Your task to perform on an android device: Clear all items from cart on newegg.com. Add "dell xps" to the cart on newegg.com Image 0: 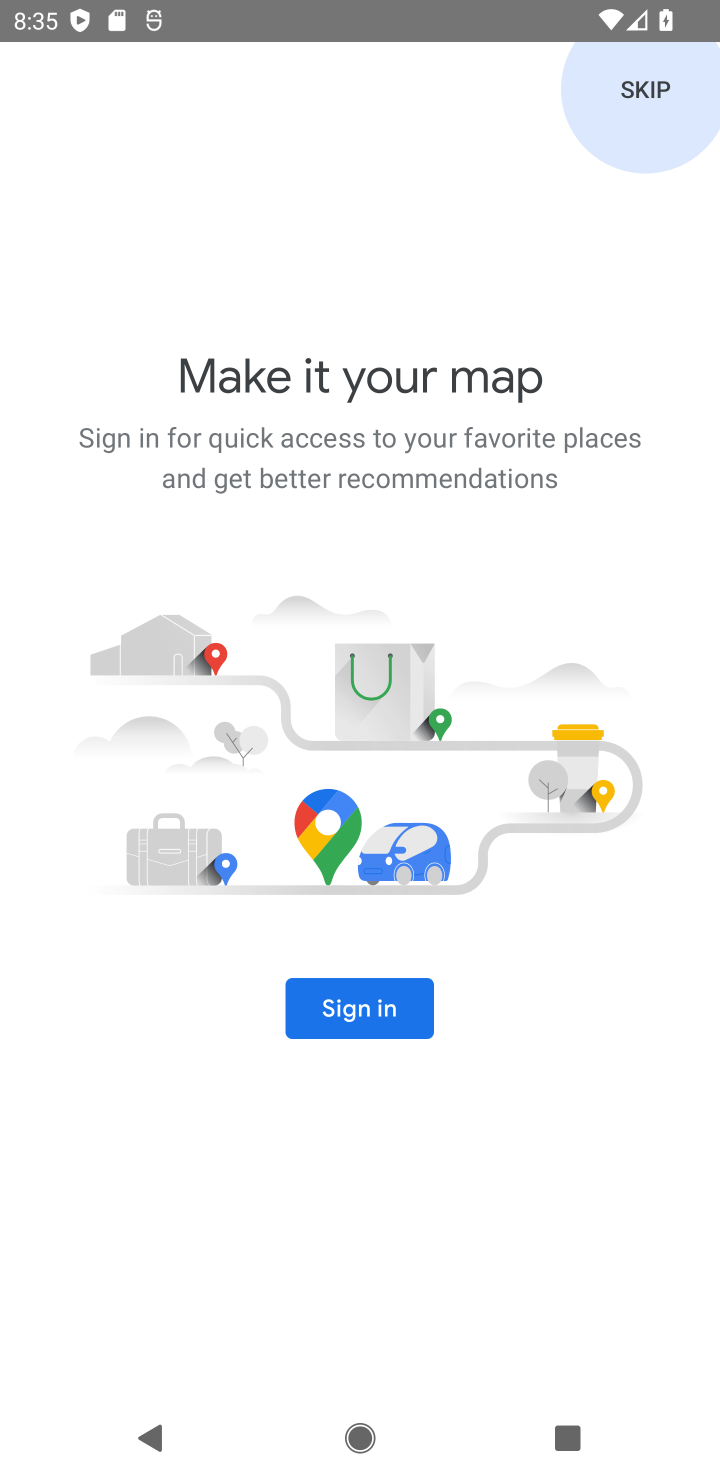
Step 0: press home button
Your task to perform on an android device: Clear all items from cart on newegg.com. Add "dell xps" to the cart on newegg.com Image 1: 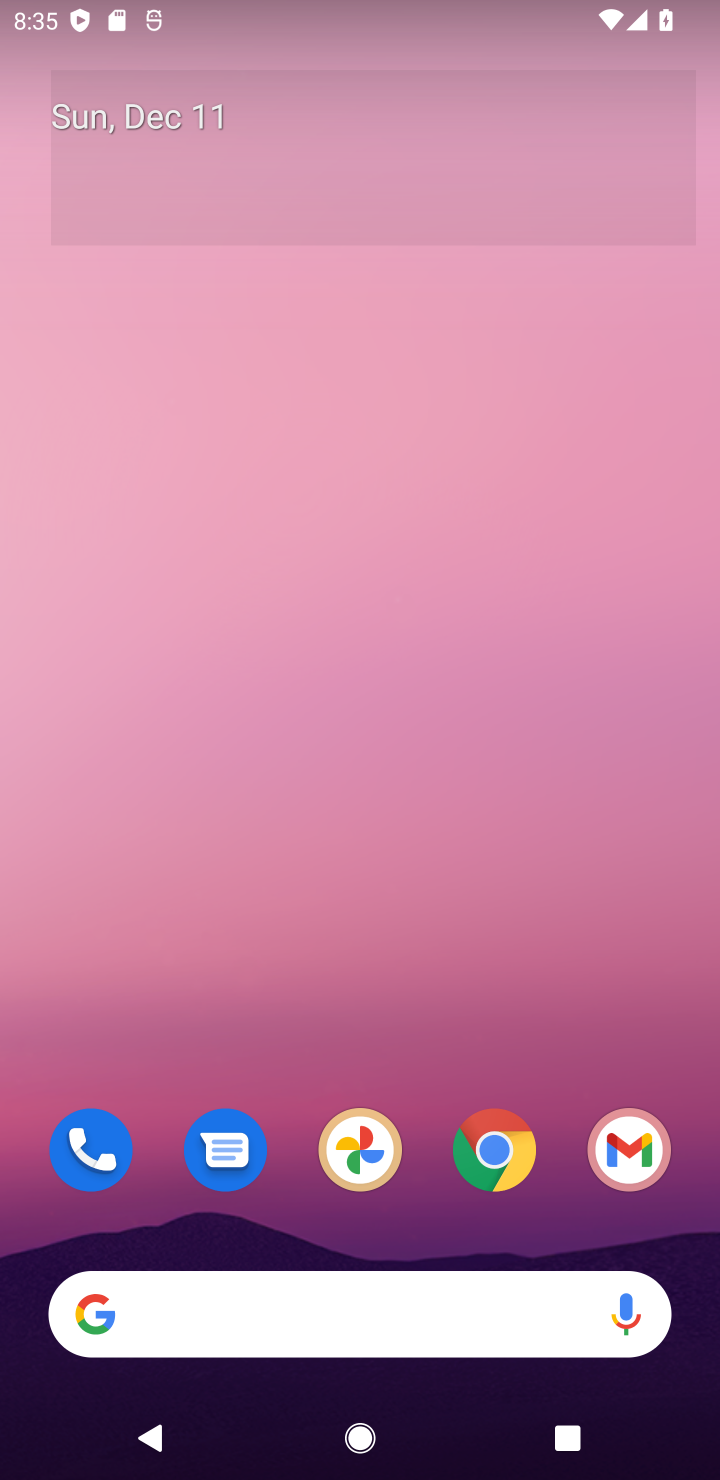
Step 1: click (496, 1150)
Your task to perform on an android device: Clear all items from cart on newegg.com. Add "dell xps" to the cart on newegg.com Image 2: 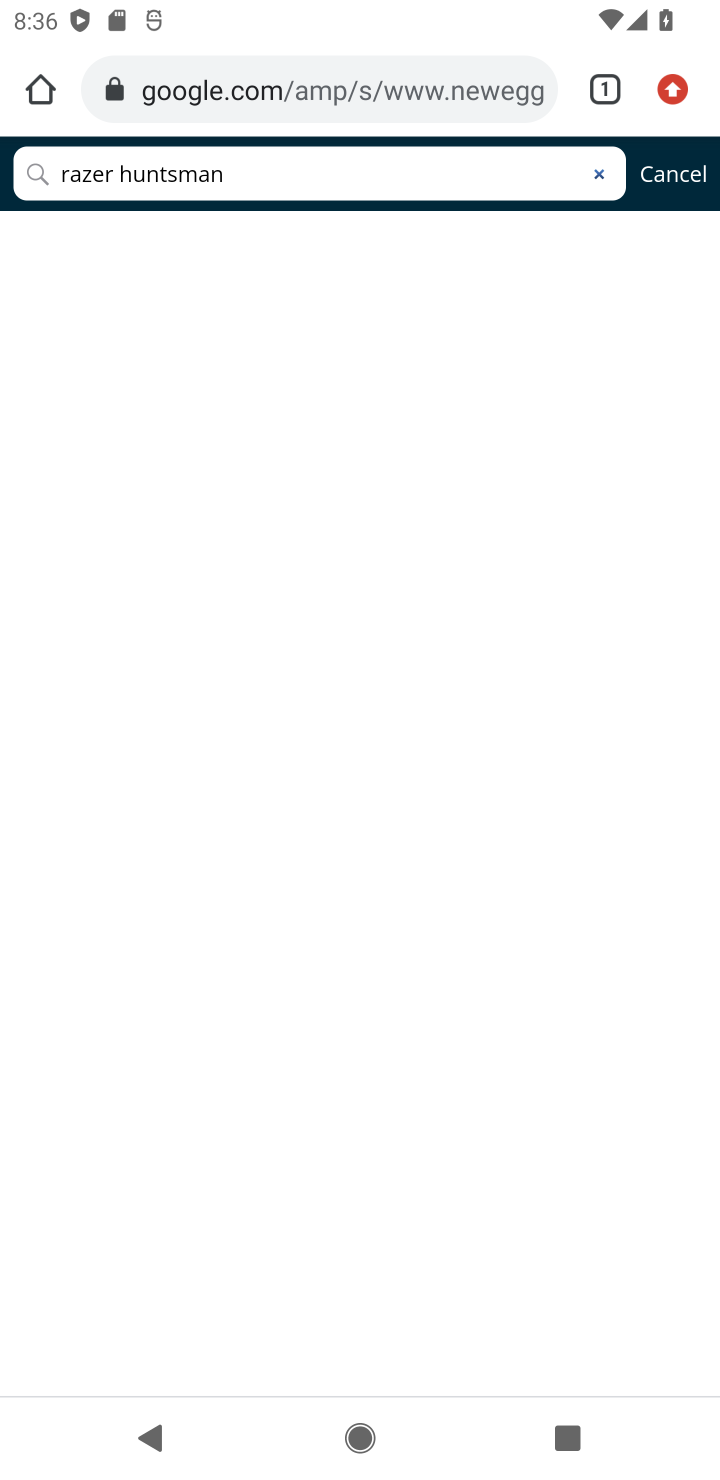
Step 2: click (416, 101)
Your task to perform on an android device: Clear all items from cart on newegg.com. Add "dell xps" to the cart on newegg.com Image 3: 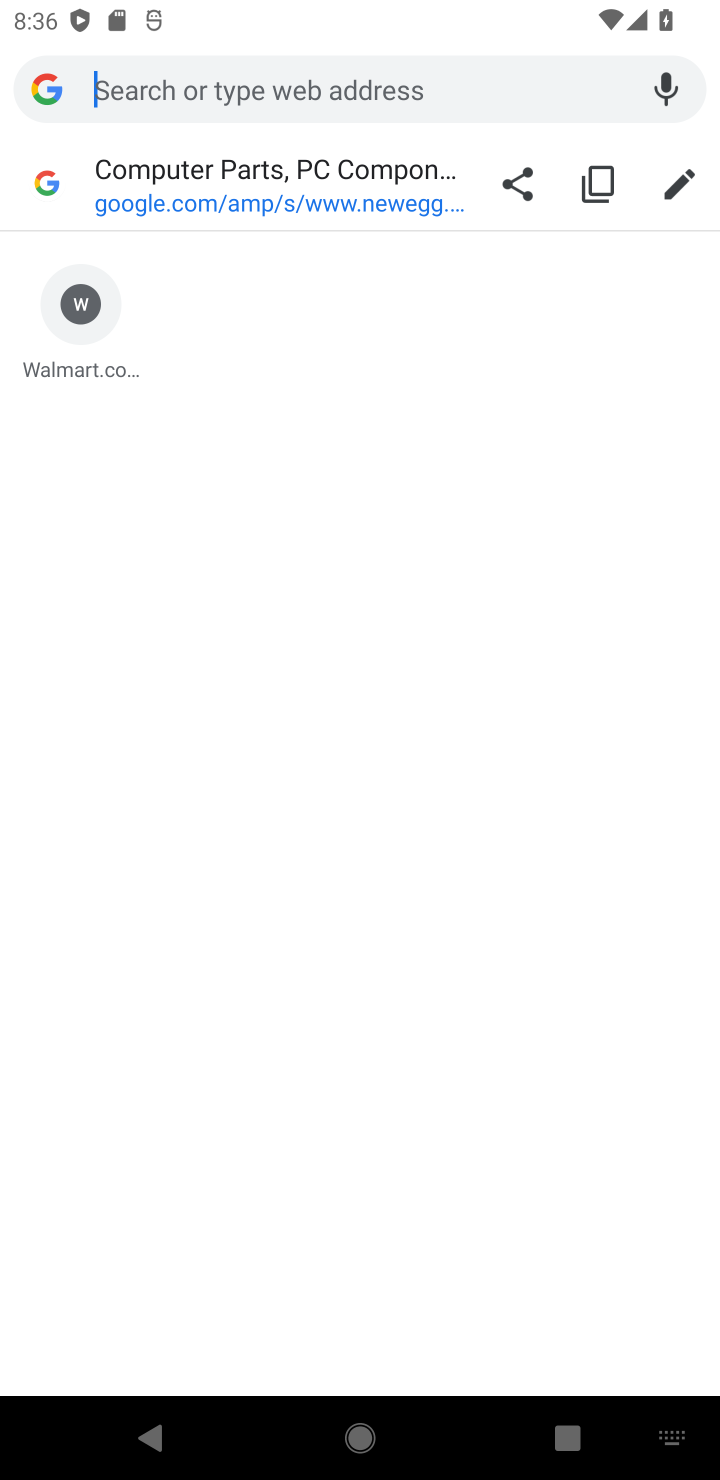
Step 3: type "newegg.com"
Your task to perform on an android device: Clear all items from cart on newegg.com. Add "dell xps" to the cart on newegg.com Image 4: 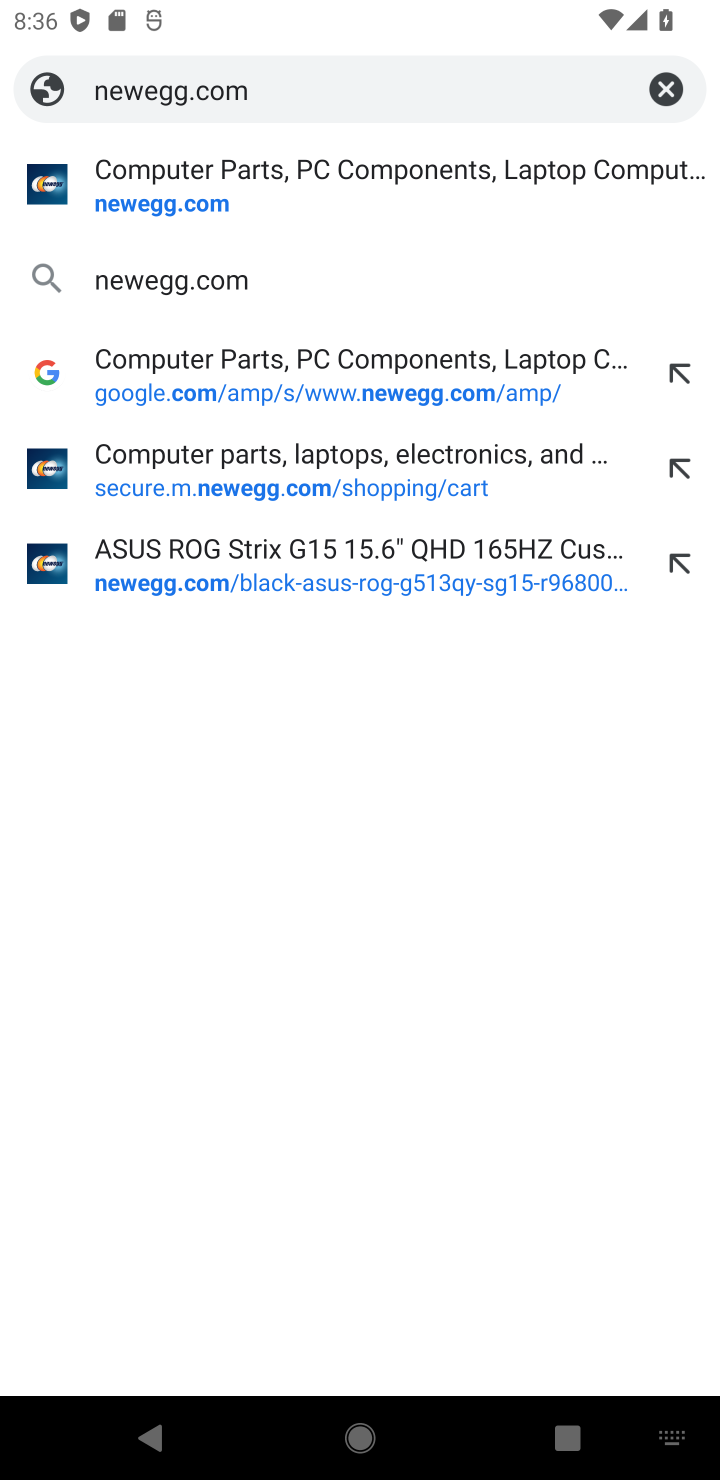
Step 4: click (237, 287)
Your task to perform on an android device: Clear all items from cart on newegg.com. Add "dell xps" to the cart on newegg.com Image 5: 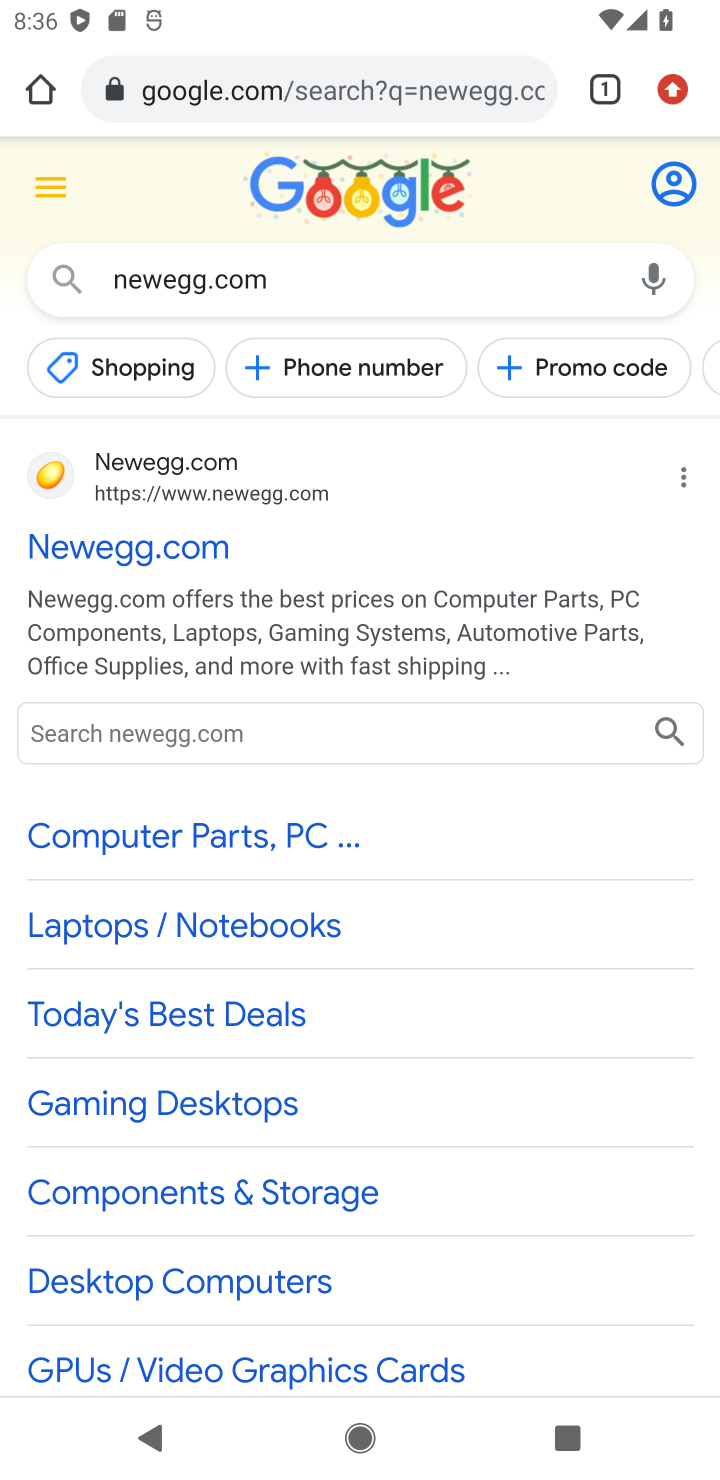
Step 5: click (189, 544)
Your task to perform on an android device: Clear all items from cart on newegg.com. Add "dell xps" to the cart on newegg.com Image 6: 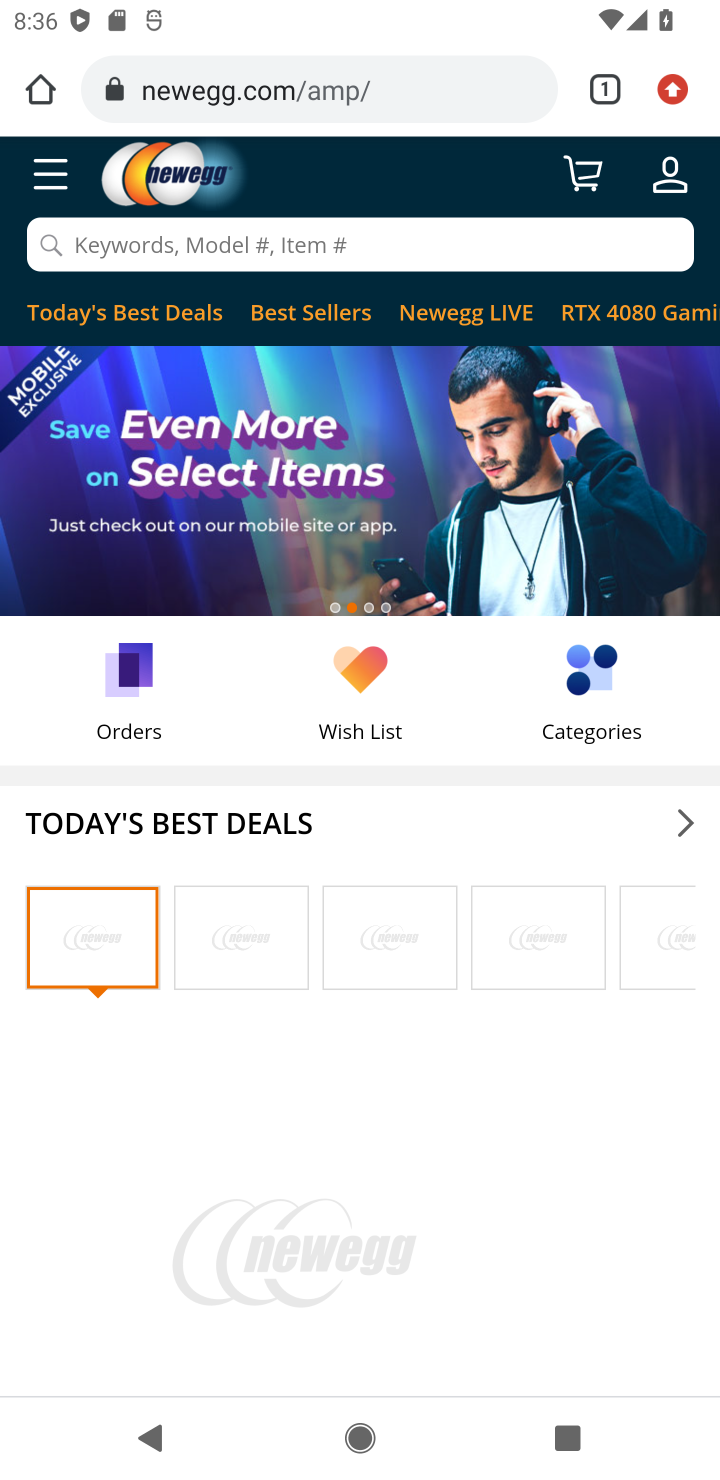
Step 6: click (585, 178)
Your task to perform on an android device: Clear all items from cart on newegg.com. Add "dell xps" to the cart on newegg.com Image 7: 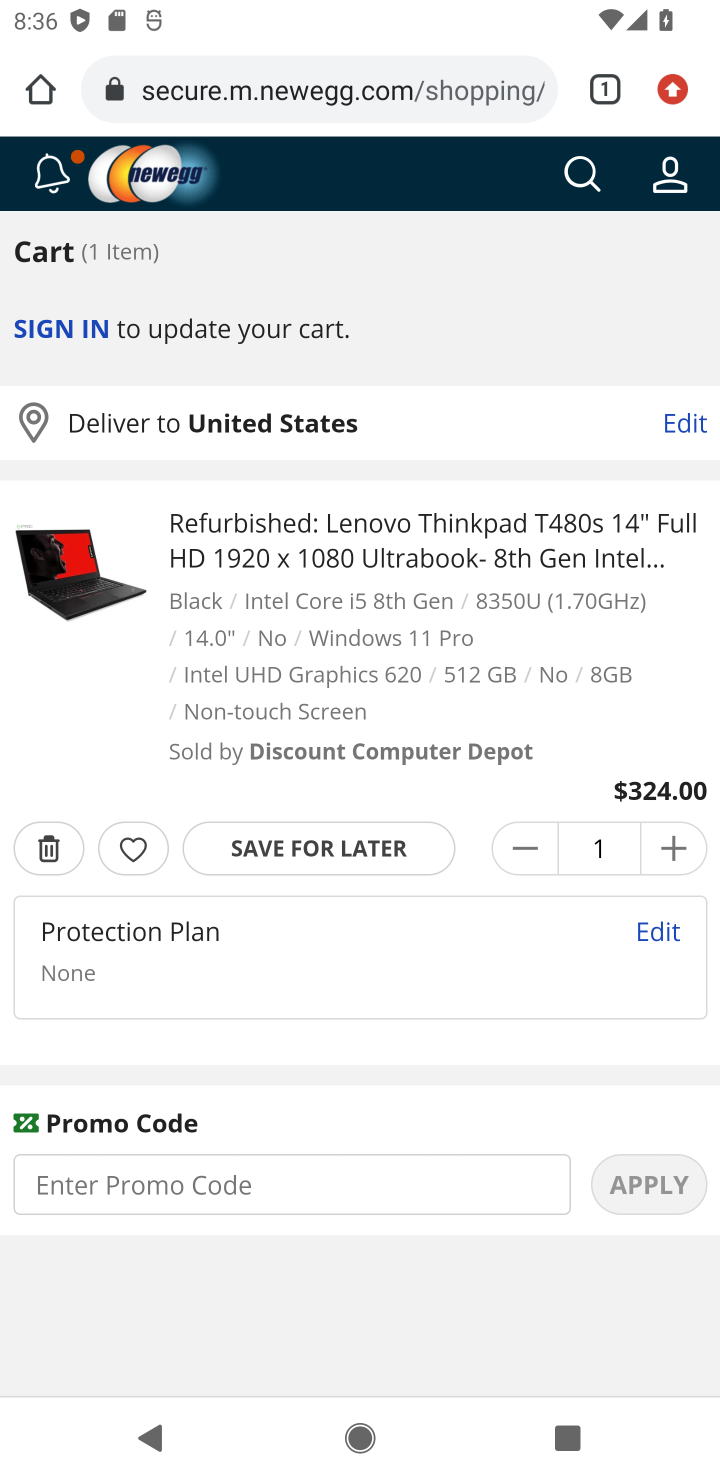
Step 7: click (33, 848)
Your task to perform on an android device: Clear all items from cart on newegg.com. Add "dell xps" to the cart on newegg.com Image 8: 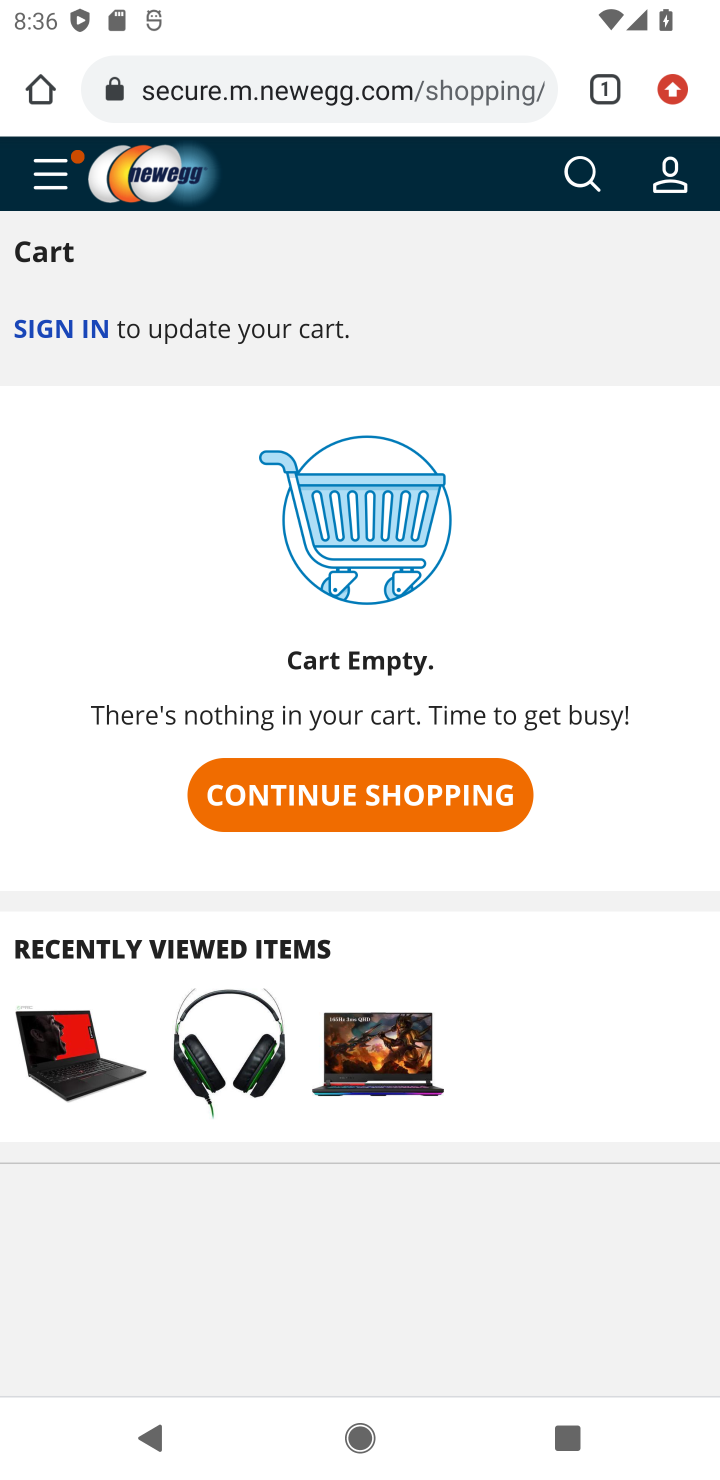
Step 8: click (302, 782)
Your task to perform on an android device: Clear all items from cart on newegg.com. Add "dell xps" to the cart on newegg.com Image 9: 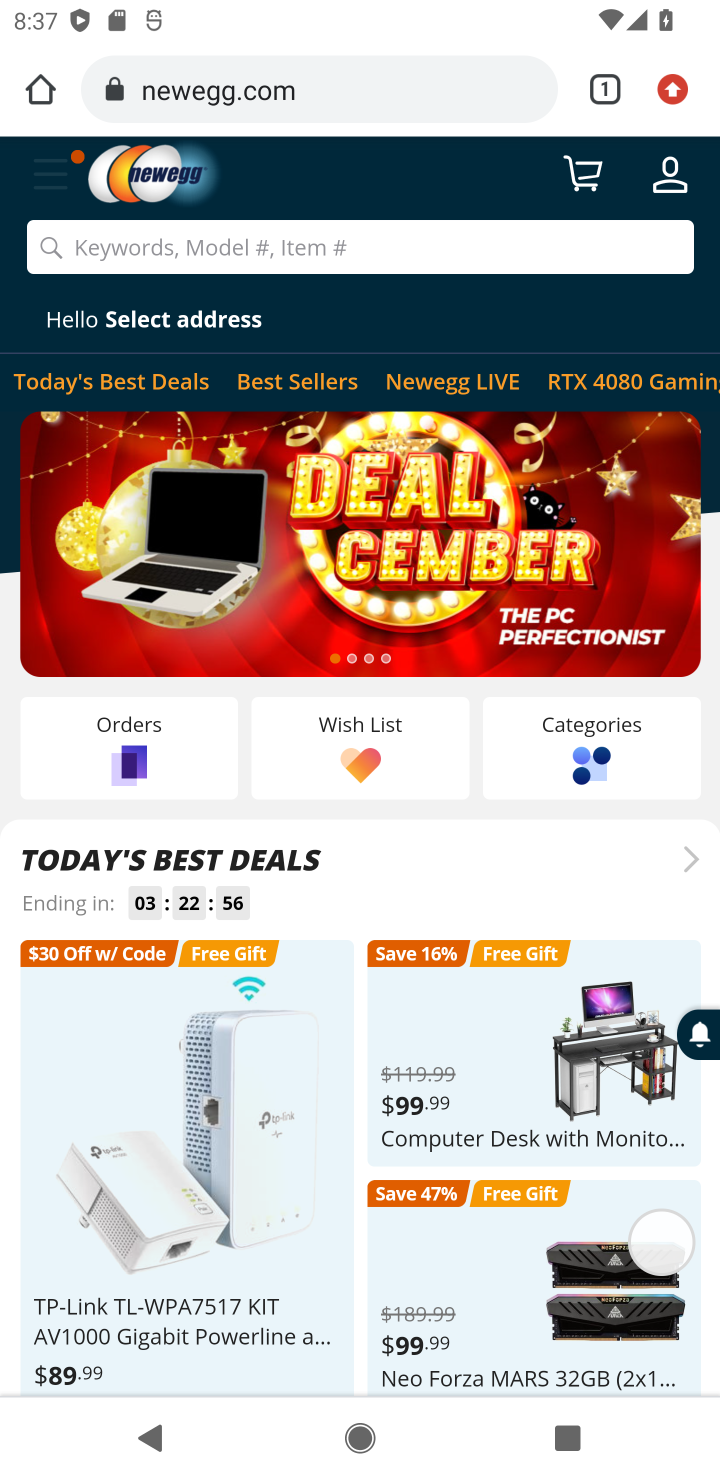
Step 9: click (340, 252)
Your task to perform on an android device: Clear all items from cart on newegg.com. Add "dell xps" to the cart on newegg.com Image 10: 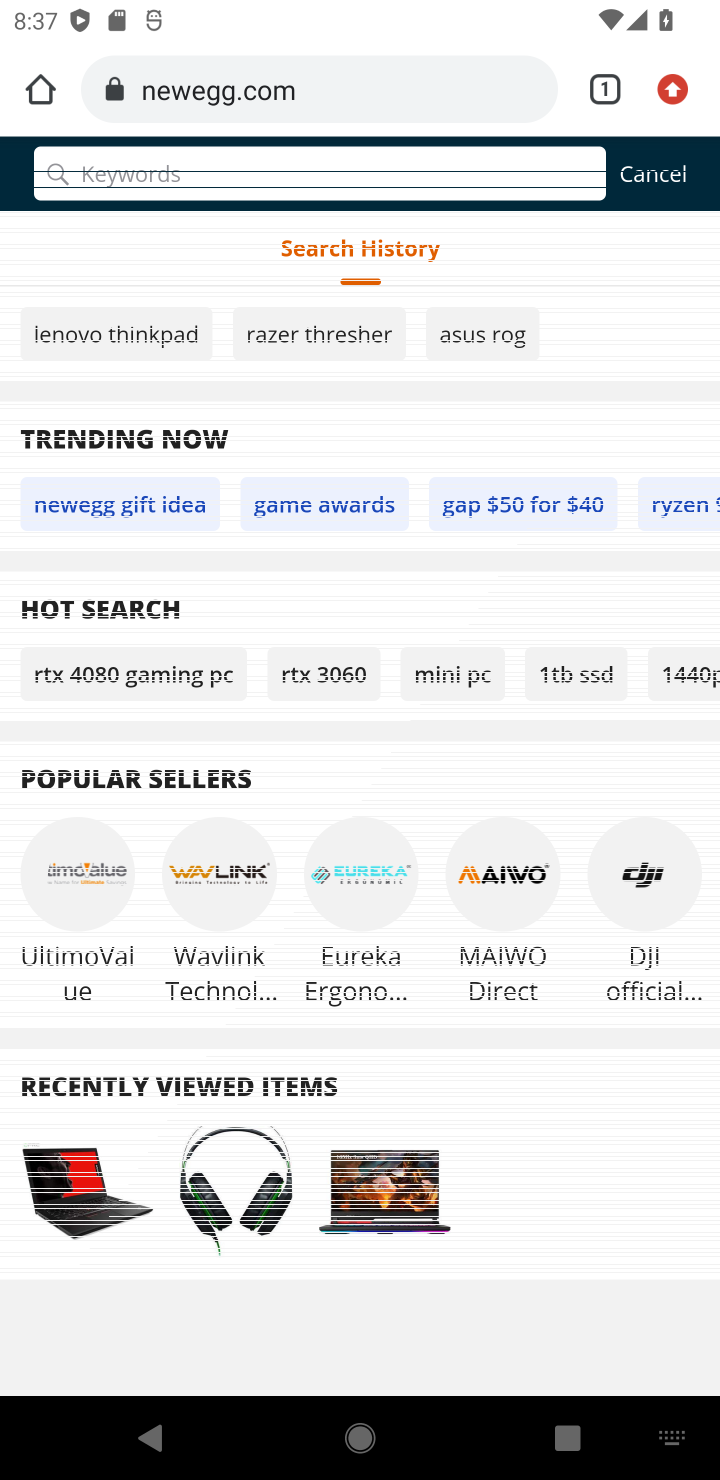
Step 10: type "dell xps"
Your task to perform on an android device: Clear all items from cart on newegg.com. Add "dell xps" to the cart on newegg.com Image 11: 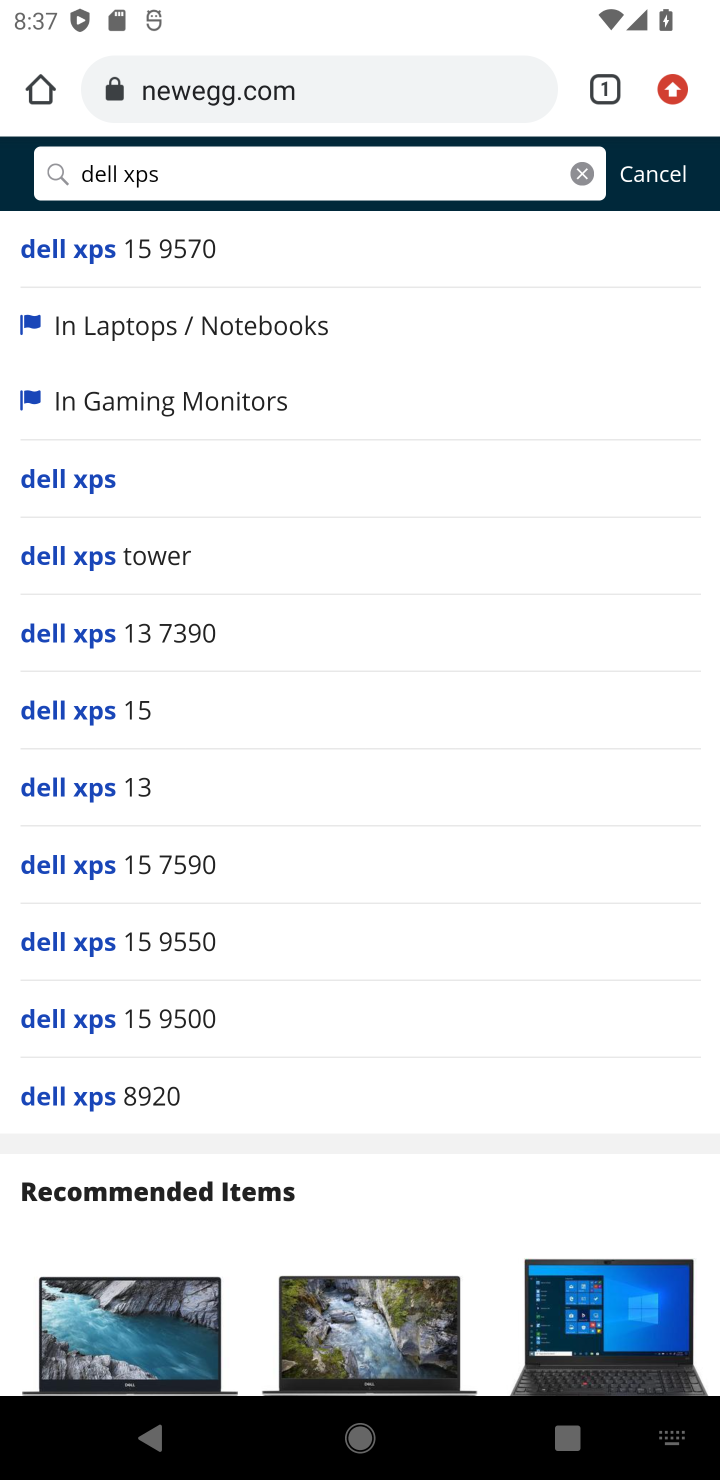
Step 11: click (73, 482)
Your task to perform on an android device: Clear all items from cart on newegg.com. Add "dell xps" to the cart on newegg.com Image 12: 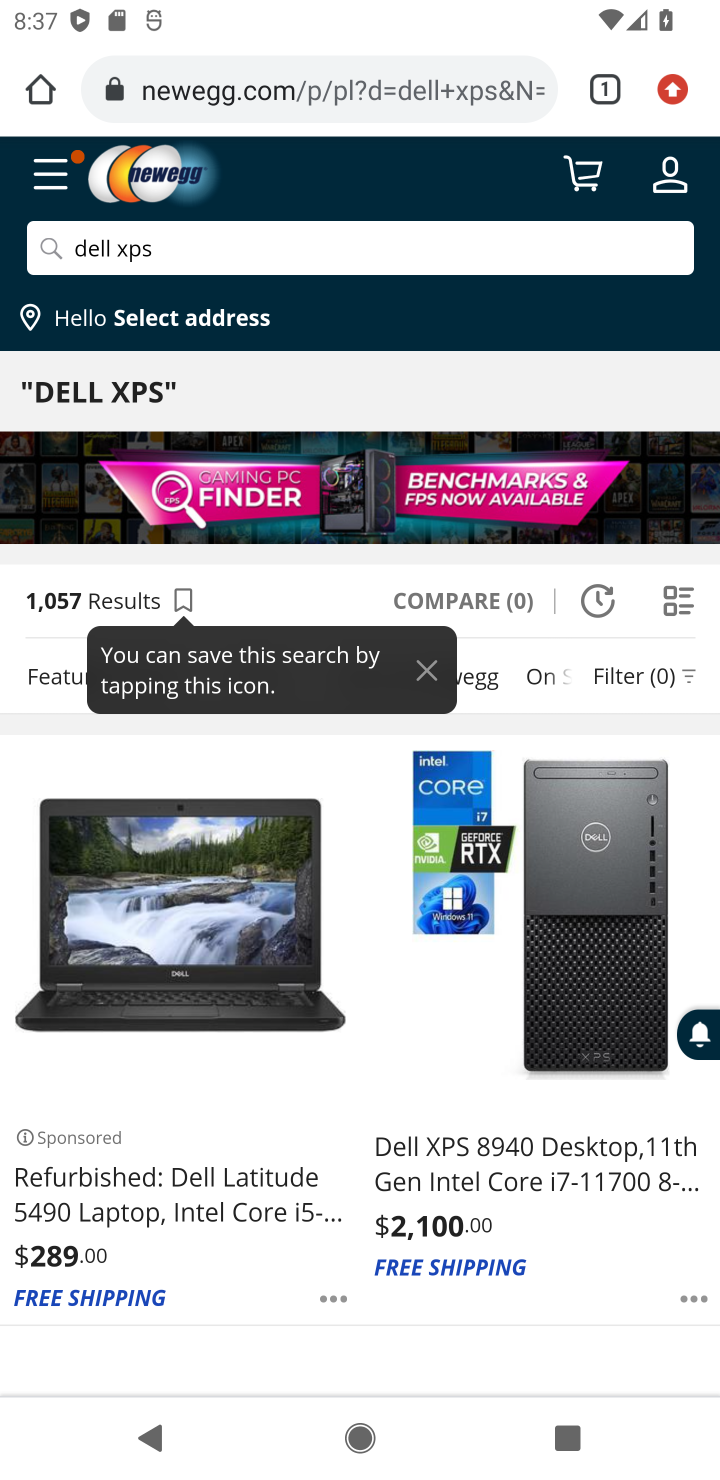
Step 12: click (133, 1210)
Your task to perform on an android device: Clear all items from cart on newegg.com. Add "dell xps" to the cart on newegg.com Image 13: 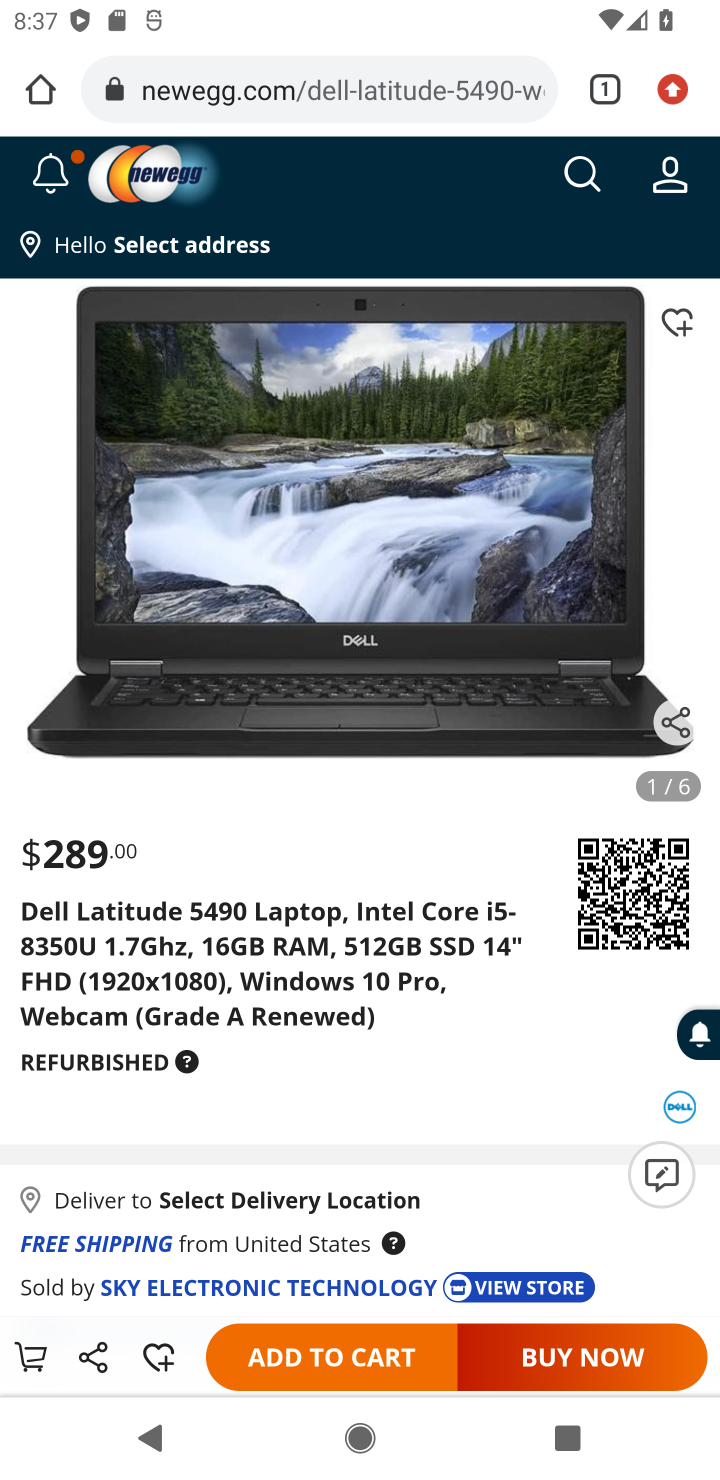
Step 13: click (271, 1354)
Your task to perform on an android device: Clear all items from cart on newegg.com. Add "dell xps" to the cart on newegg.com Image 14: 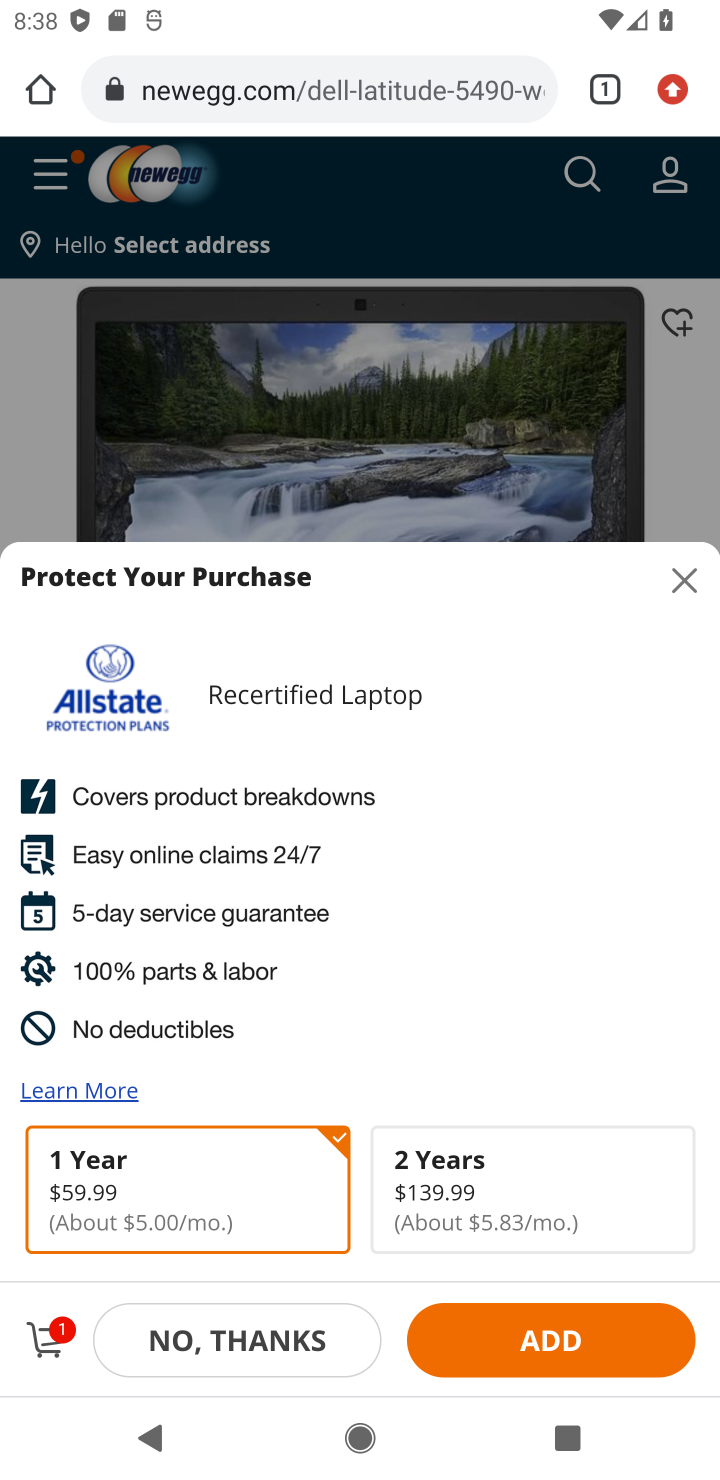
Step 14: drag from (474, 1213) to (535, 854)
Your task to perform on an android device: Clear all items from cart on newegg.com. Add "dell xps" to the cart on newegg.com Image 15: 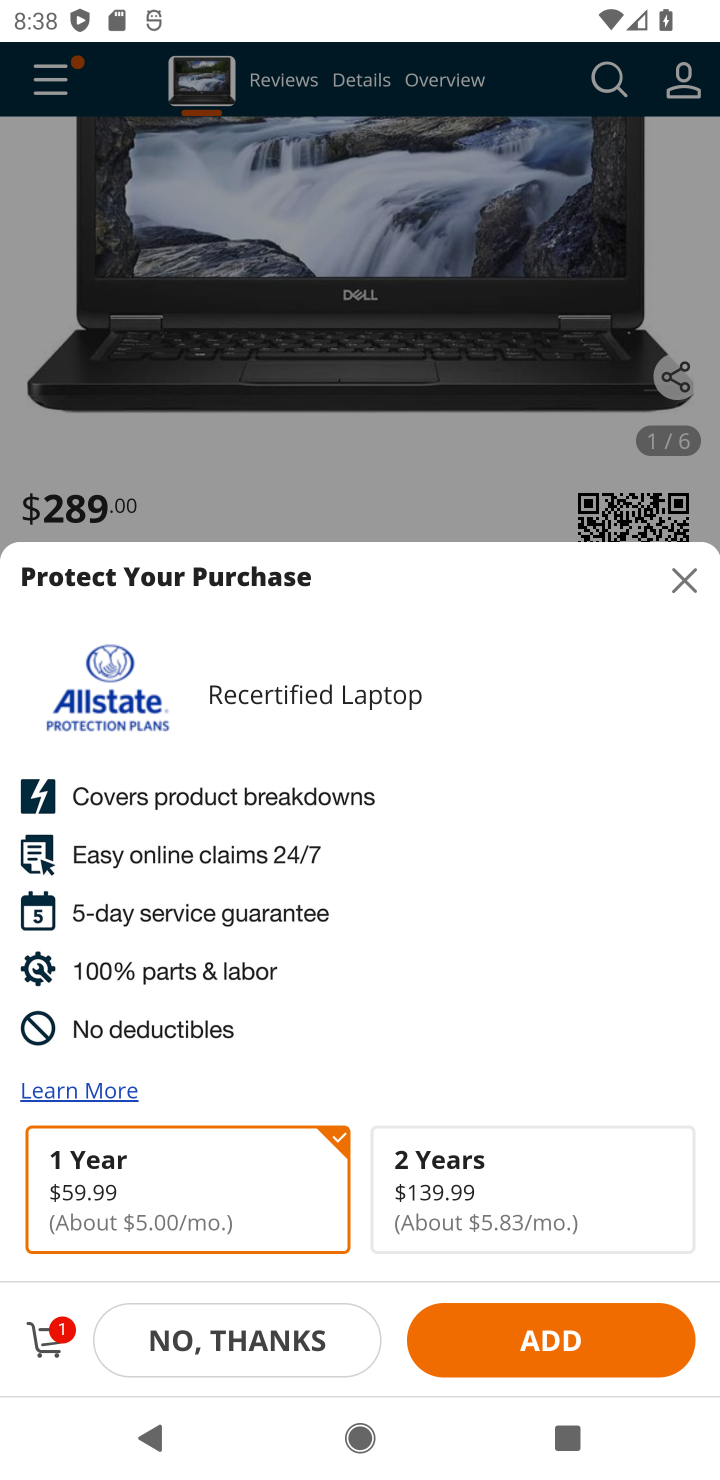
Step 15: click (43, 1347)
Your task to perform on an android device: Clear all items from cart on newegg.com. Add "dell xps" to the cart on newegg.com Image 16: 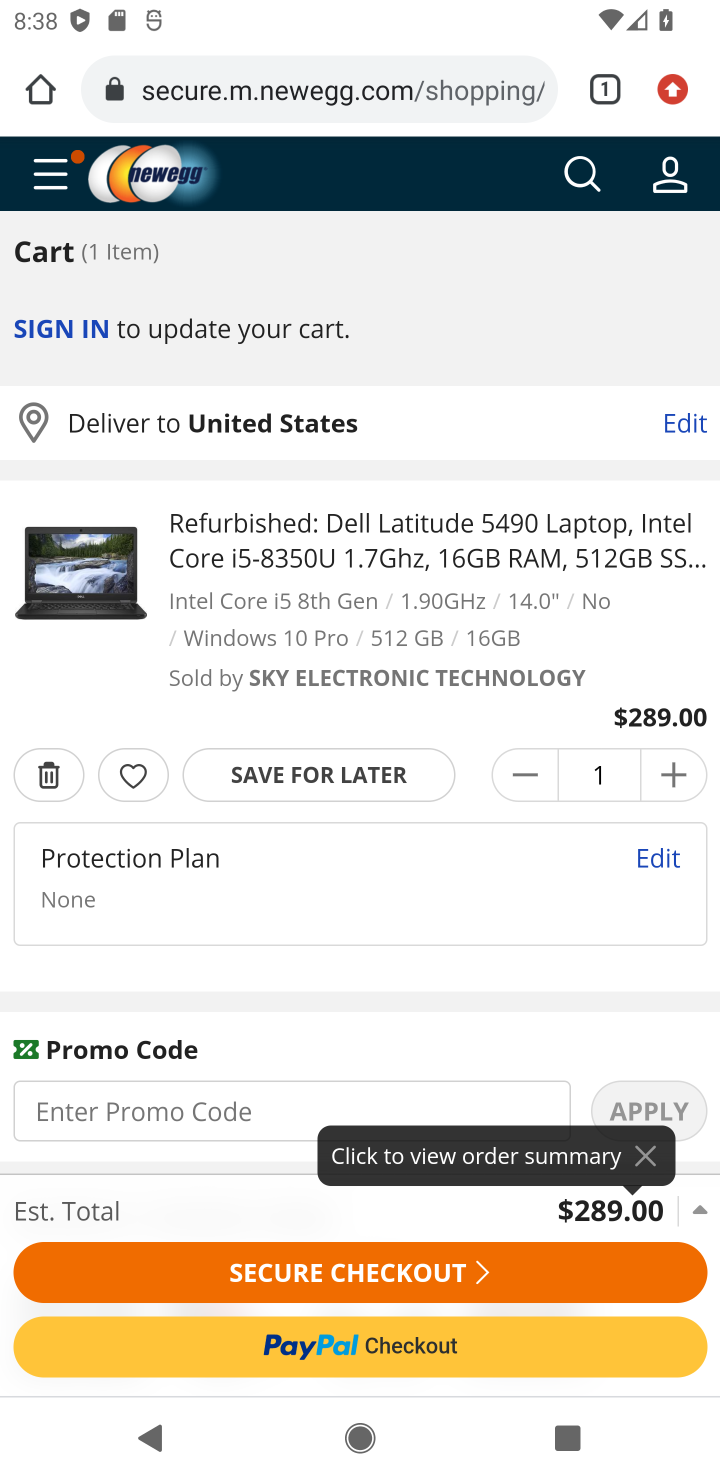
Step 16: task complete